Your task to perform on an android device: Is it going to rain this weekend? Image 0: 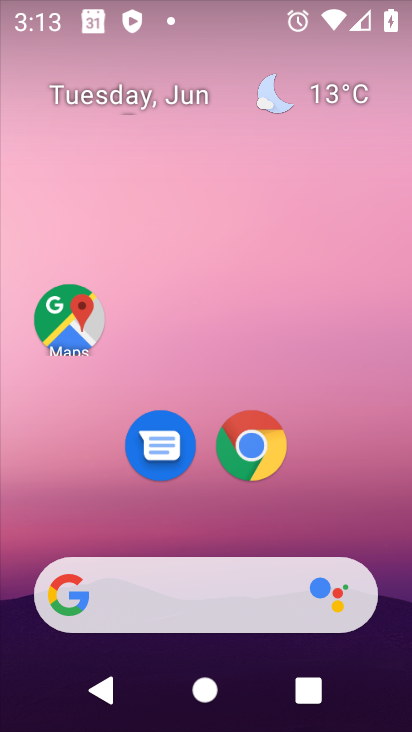
Step 0: click (297, 99)
Your task to perform on an android device: Is it going to rain this weekend? Image 1: 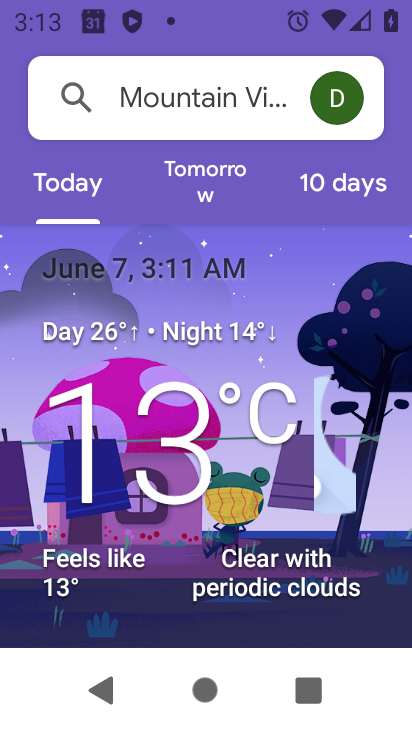
Step 1: click (340, 186)
Your task to perform on an android device: Is it going to rain this weekend? Image 2: 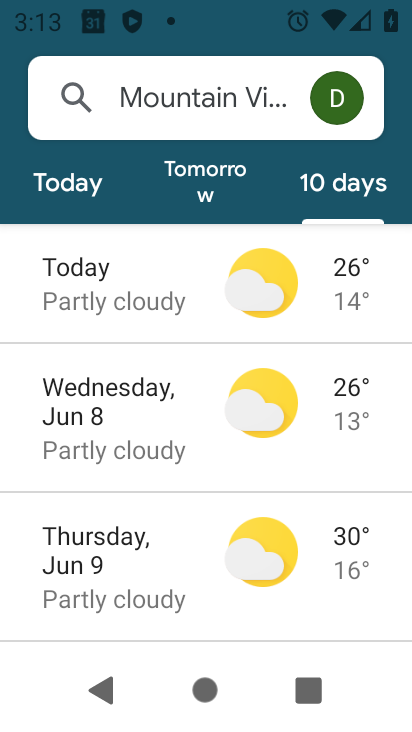
Step 2: task complete